Your task to perform on an android device: delete location history Image 0: 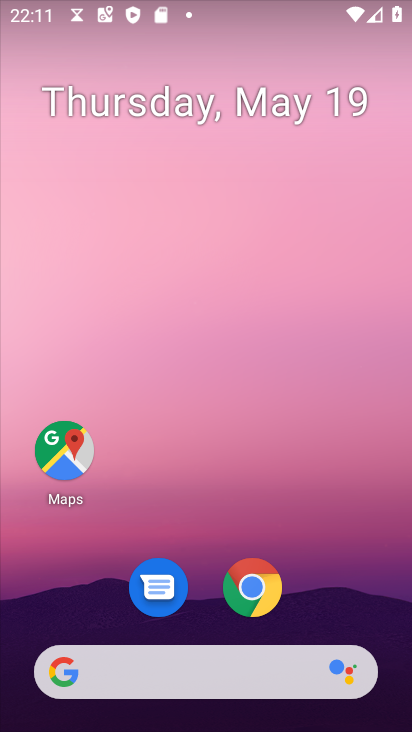
Step 0: drag from (183, 632) to (135, 200)
Your task to perform on an android device: delete location history Image 1: 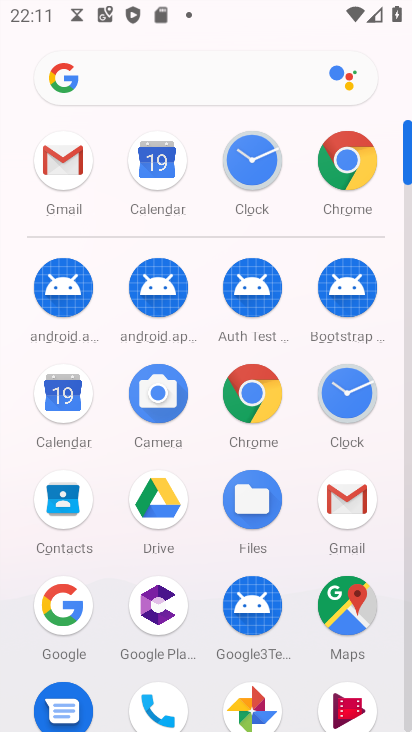
Step 1: drag from (208, 557) to (198, 249)
Your task to perform on an android device: delete location history Image 2: 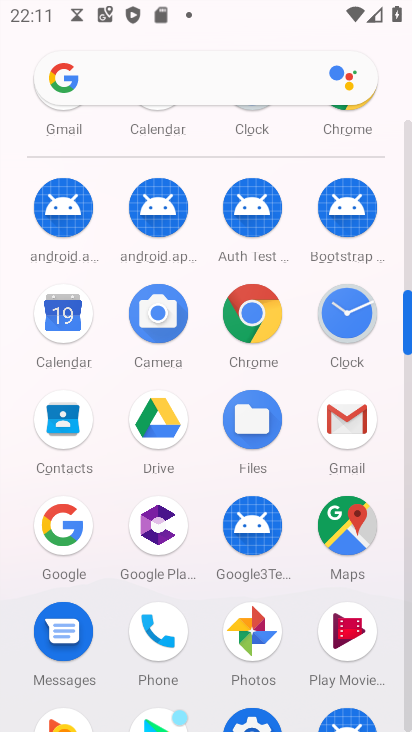
Step 2: drag from (206, 579) to (188, 190)
Your task to perform on an android device: delete location history Image 3: 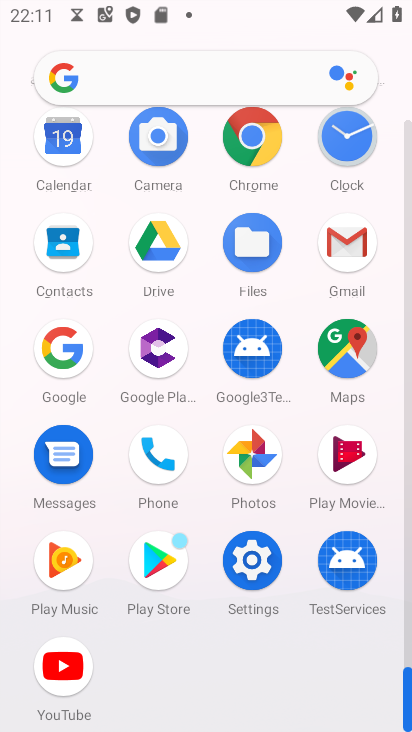
Step 3: click (342, 346)
Your task to perform on an android device: delete location history Image 4: 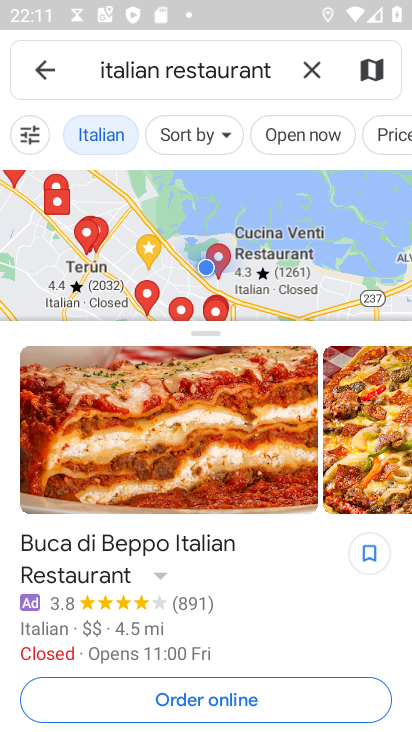
Step 4: click (53, 75)
Your task to perform on an android device: delete location history Image 5: 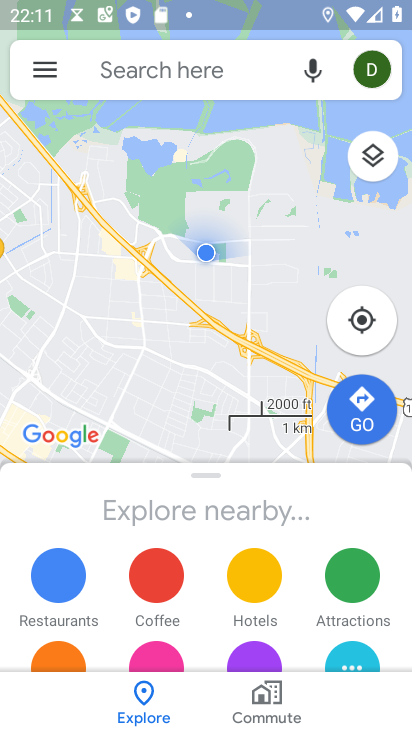
Step 5: click (46, 77)
Your task to perform on an android device: delete location history Image 6: 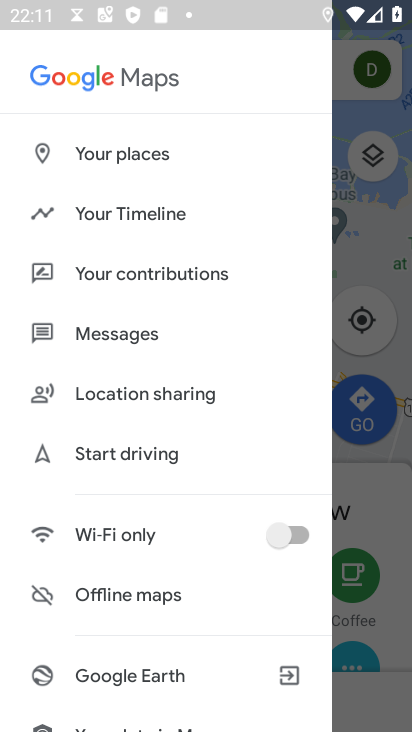
Step 6: click (125, 211)
Your task to perform on an android device: delete location history Image 7: 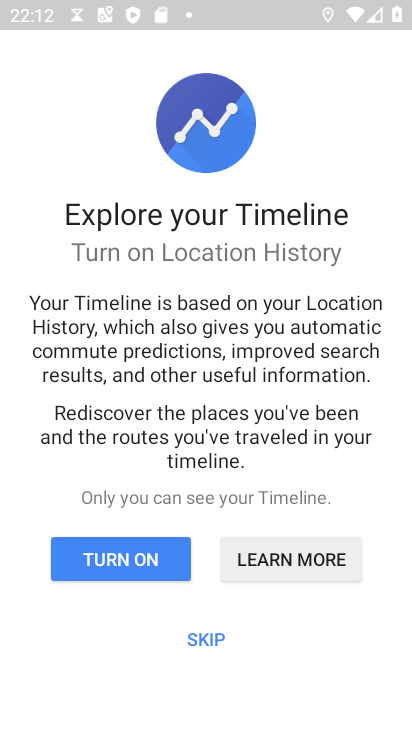
Step 7: click (134, 572)
Your task to perform on an android device: delete location history Image 8: 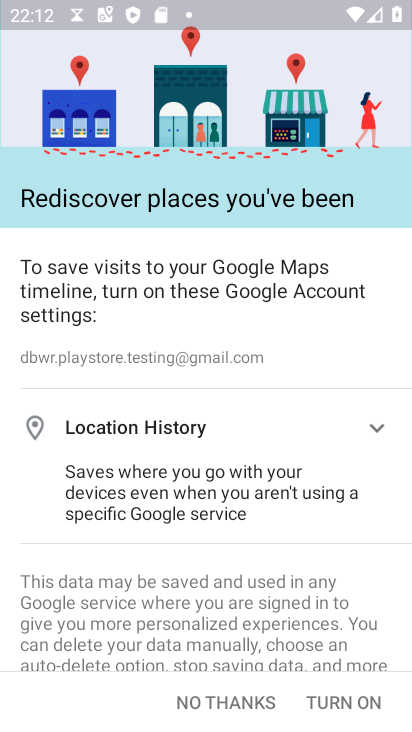
Step 8: click (366, 712)
Your task to perform on an android device: delete location history Image 9: 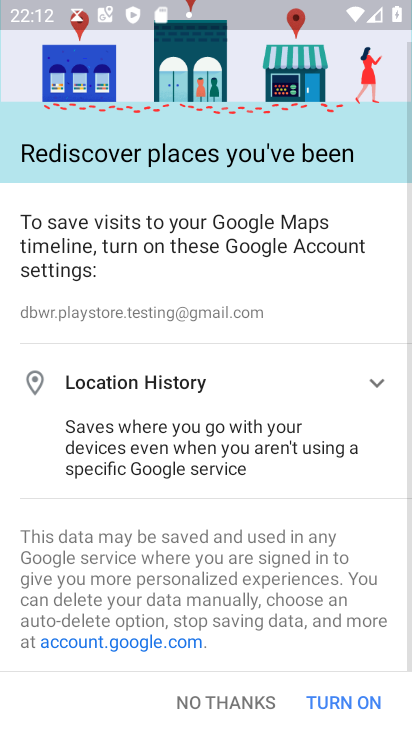
Step 9: click (366, 712)
Your task to perform on an android device: delete location history Image 10: 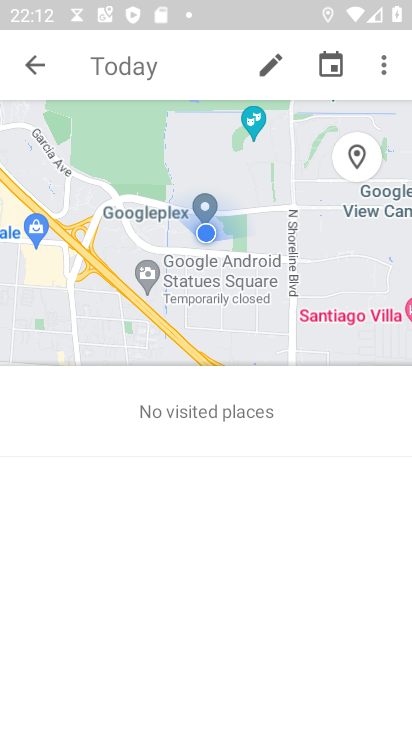
Step 10: click (381, 76)
Your task to perform on an android device: delete location history Image 11: 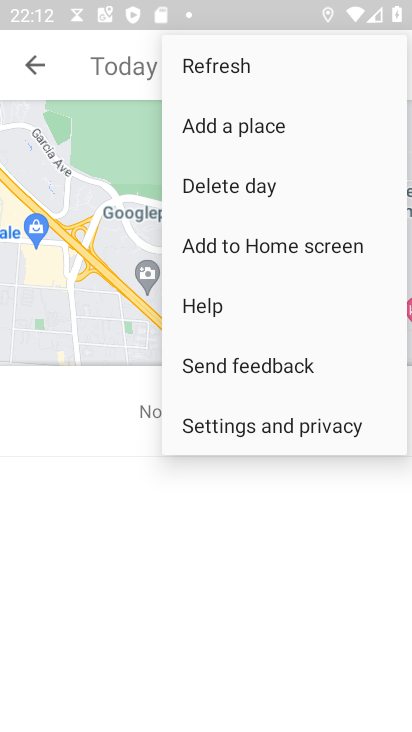
Step 11: click (275, 433)
Your task to perform on an android device: delete location history Image 12: 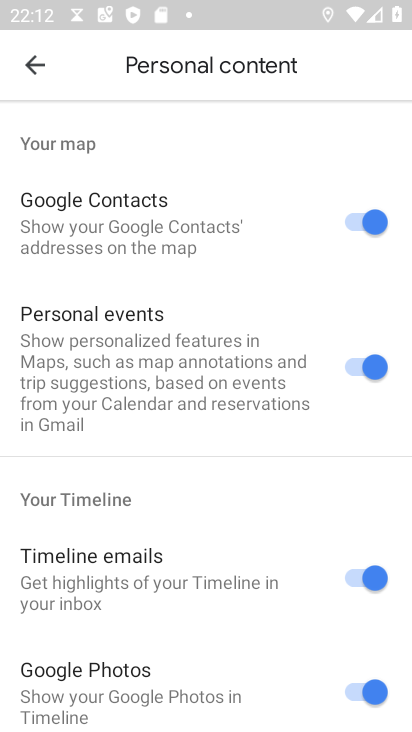
Step 12: drag from (176, 620) to (157, 95)
Your task to perform on an android device: delete location history Image 13: 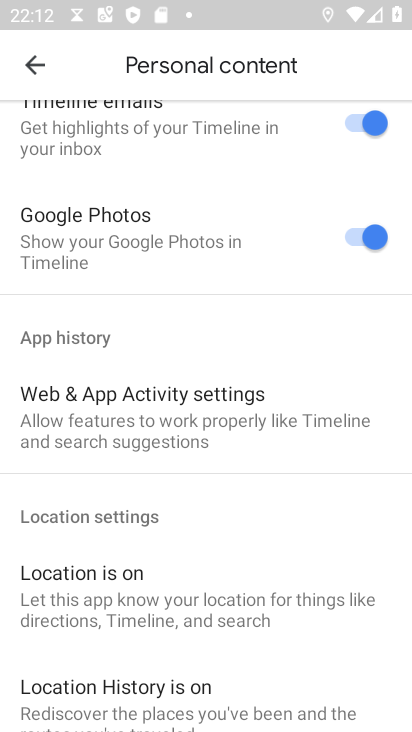
Step 13: drag from (248, 707) to (224, 240)
Your task to perform on an android device: delete location history Image 14: 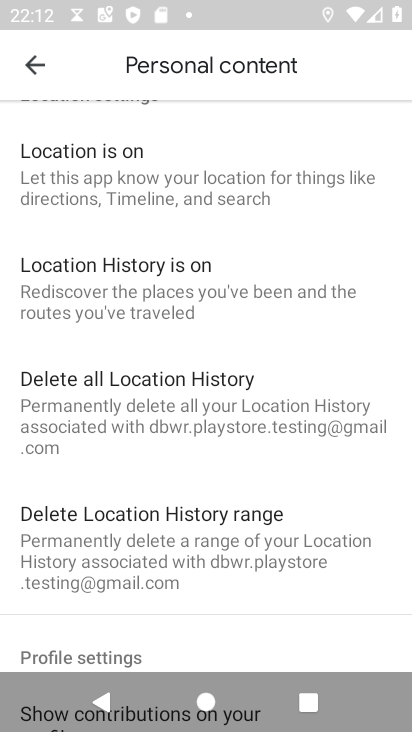
Step 14: click (185, 415)
Your task to perform on an android device: delete location history Image 15: 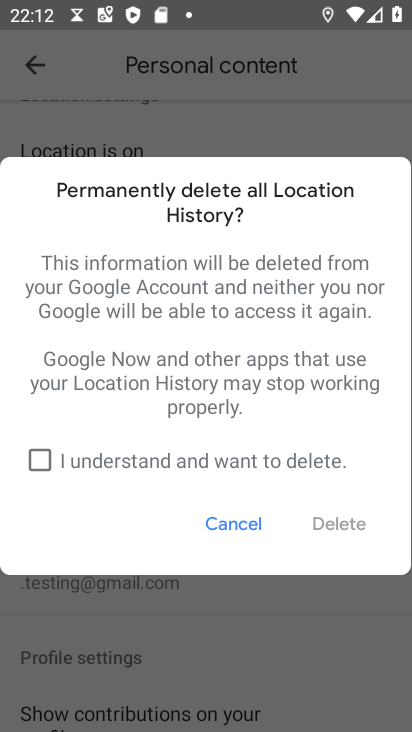
Step 15: click (243, 464)
Your task to perform on an android device: delete location history Image 16: 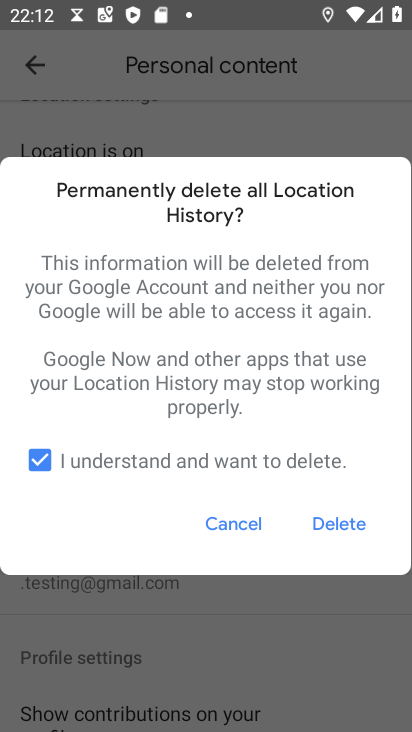
Step 16: click (334, 520)
Your task to perform on an android device: delete location history Image 17: 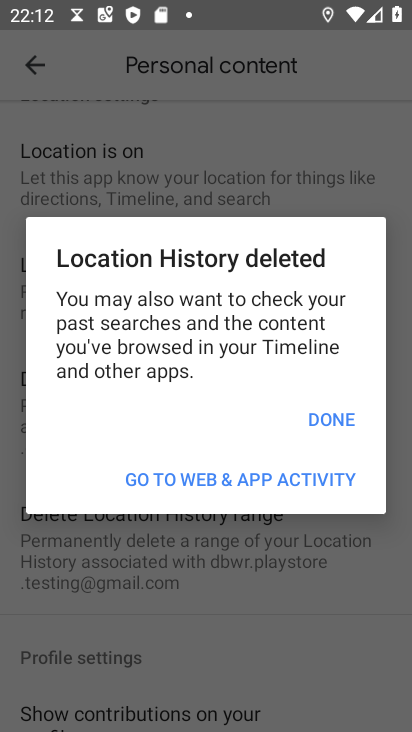
Step 17: click (330, 398)
Your task to perform on an android device: delete location history Image 18: 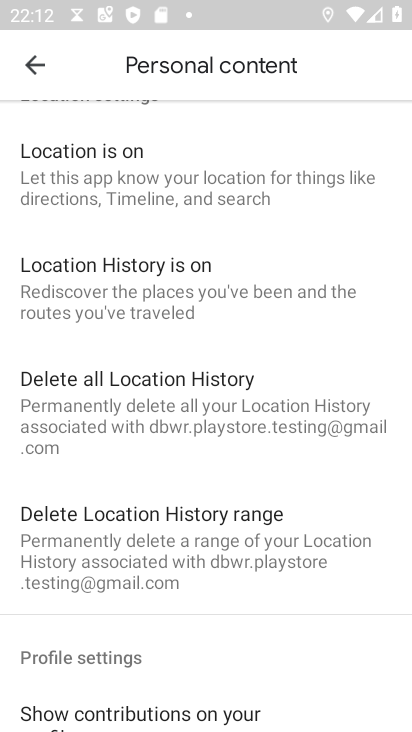
Step 18: task complete